Your task to perform on an android device: Open Google Chrome and click the shortcut for Amazon.com Image 0: 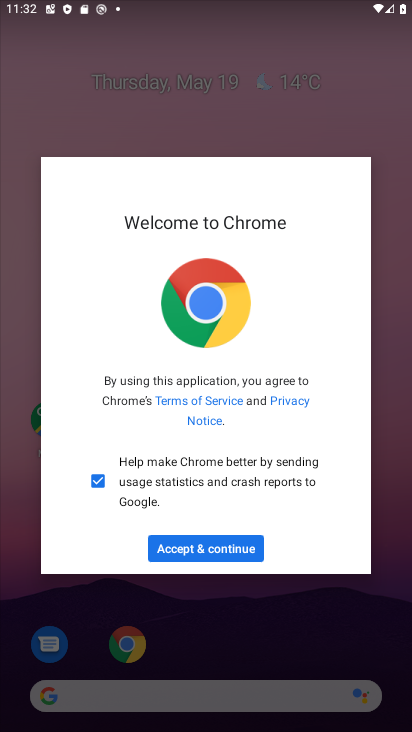
Step 0: press home button
Your task to perform on an android device: Open Google Chrome and click the shortcut for Amazon.com Image 1: 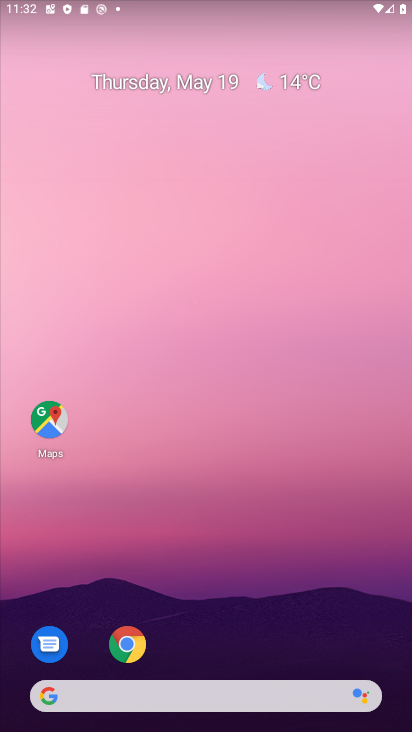
Step 1: click (127, 664)
Your task to perform on an android device: Open Google Chrome and click the shortcut for Amazon.com Image 2: 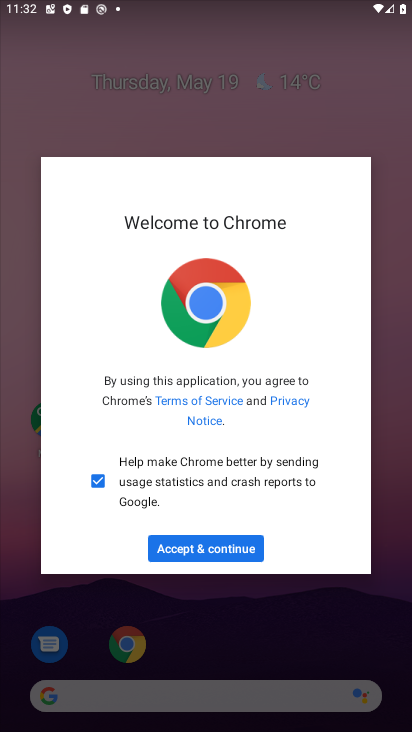
Step 2: click (177, 563)
Your task to perform on an android device: Open Google Chrome and click the shortcut for Amazon.com Image 3: 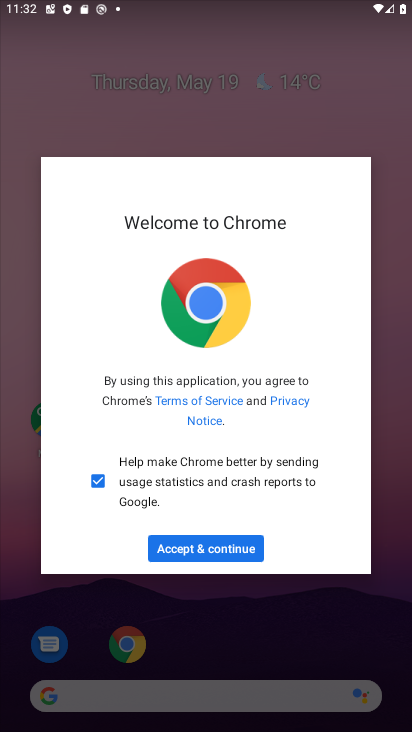
Step 3: click (216, 539)
Your task to perform on an android device: Open Google Chrome and click the shortcut for Amazon.com Image 4: 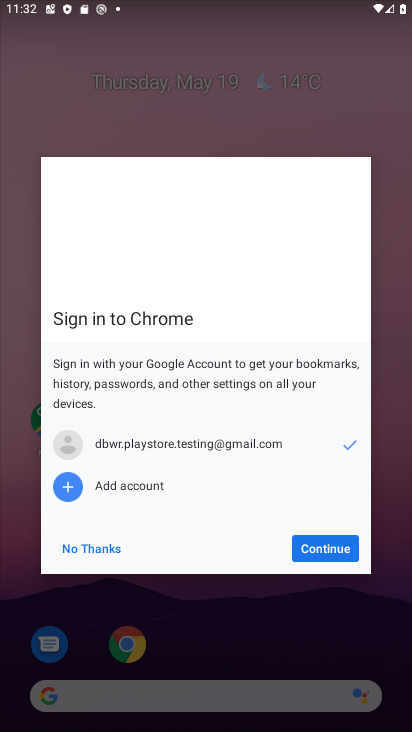
Step 4: click (187, 555)
Your task to perform on an android device: Open Google Chrome and click the shortcut for Amazon.com Image 5: 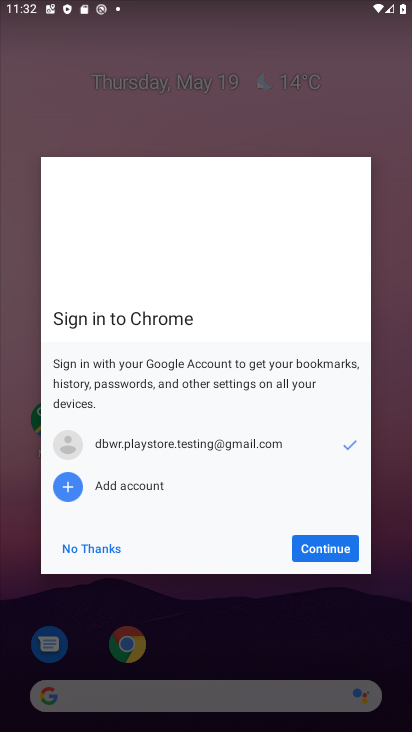
Step 5: click (347, 547)
Your task to perform on an android device: Open Google Chrome and click the shortcut for Amazon.com Image 6: 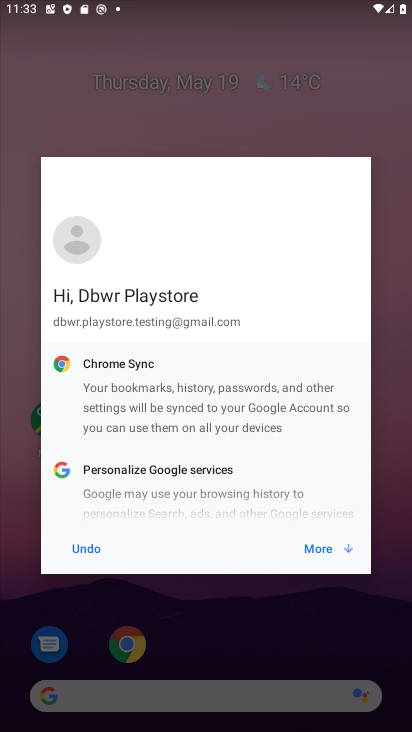
Step 6: click (336, 552)
Your task to perform on an android device: Open Google Chrome and click the shortcut for Amazon.com Image 7: 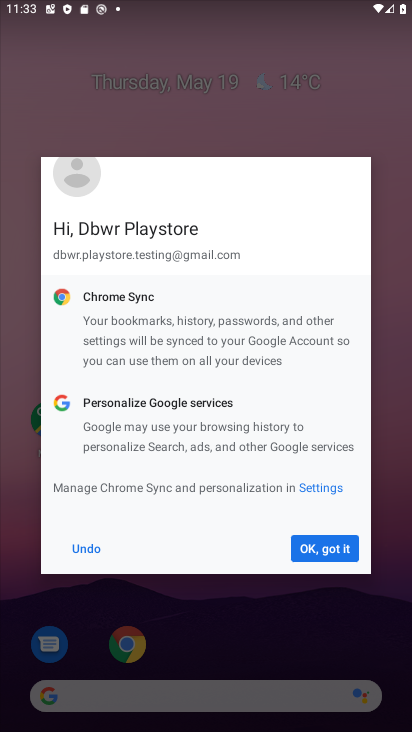
Step 7: click (336, 552)
Your task to perform on an android device: Open Google Chrome and click the shortcut for Amazon.com Image 8: 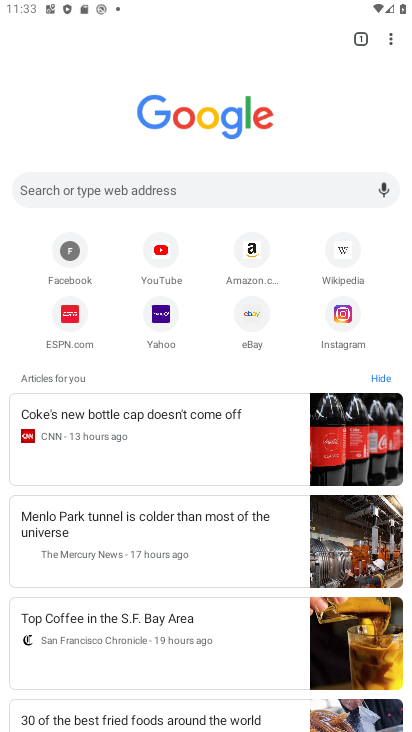
Step 8: click (242, 248)
Your task to perform on an android device: Open Google Chrome and click the shortcut for Amazon.com Image 9: 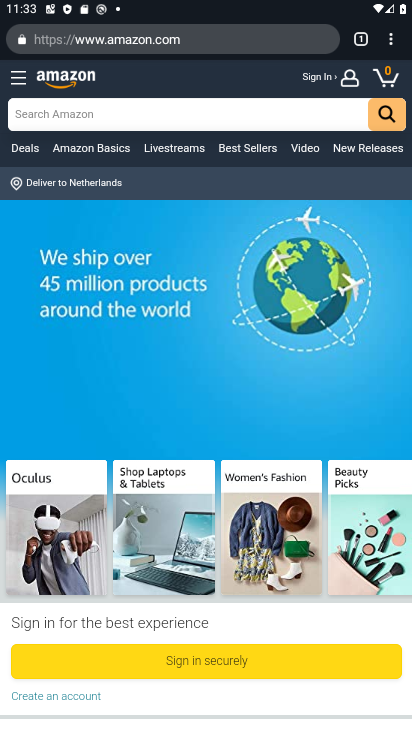
Step 9: task complete